Your task to perform on an android device: Search for razer nari on amazon, select the first entry, add it to the cart, then select checkout. Image 0: 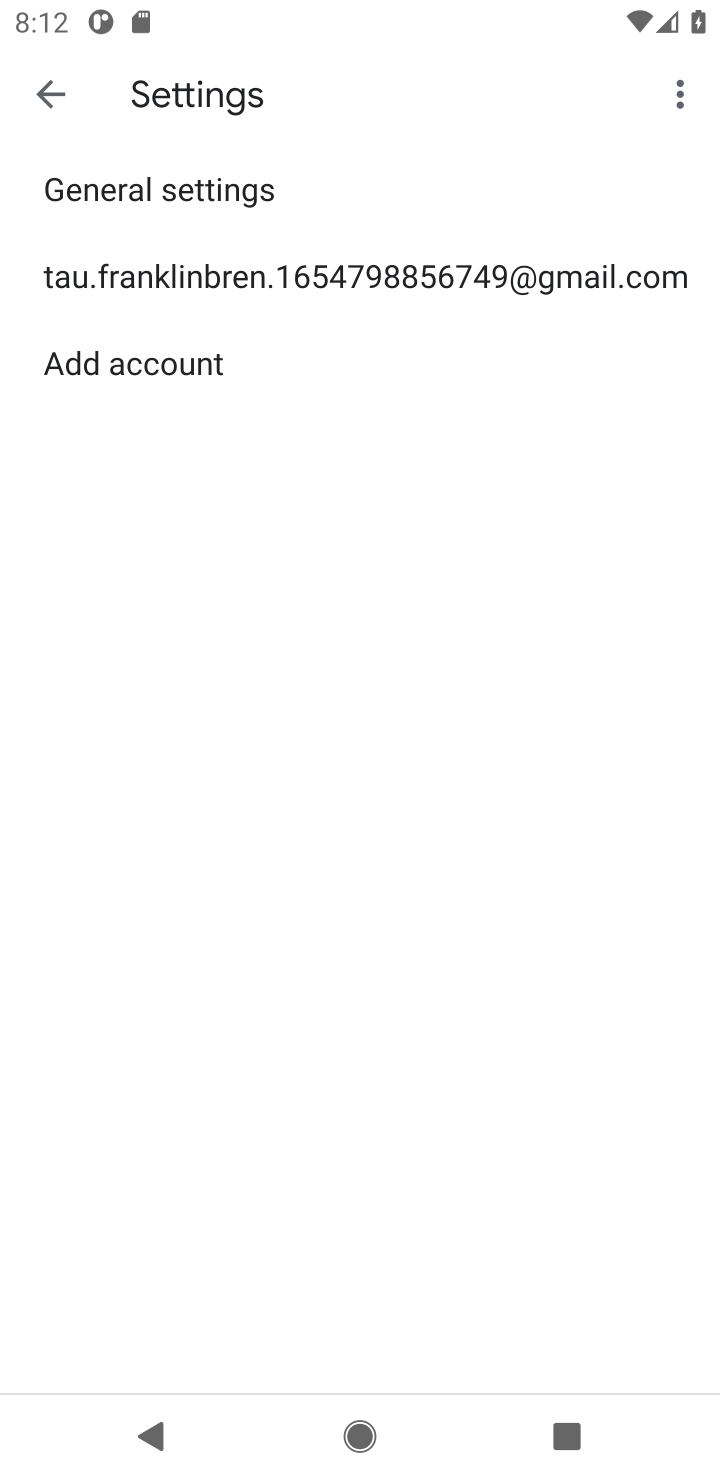
Step 0: press home button
Your task to perform on an android device: Search for razer nari on amazon, select the first entry, add it to the cart, then select checkout. Image 1: 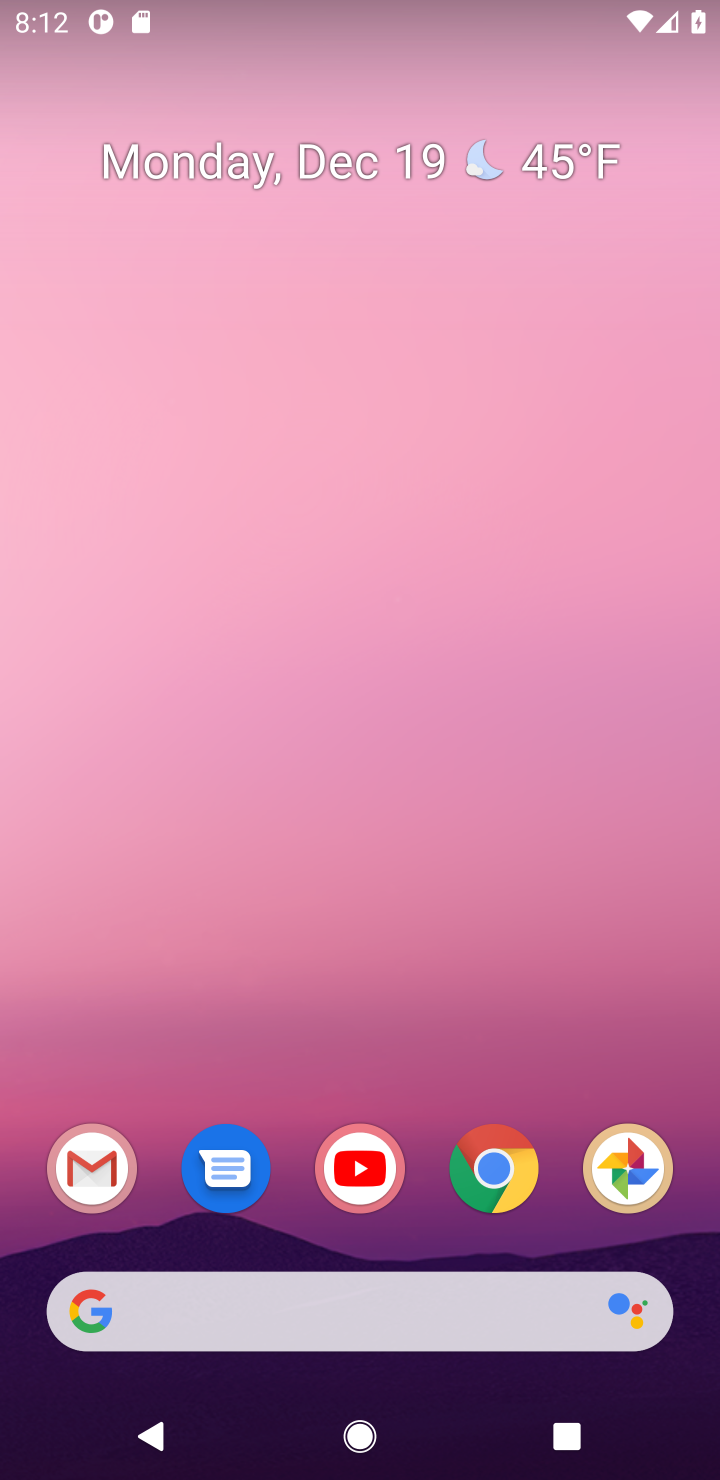
Step 1: click (501, 1170)
Your task to perform on an android device: Search for razer nari on amazon, select the first entry, add it to the cart, then select checkout. Image 2: 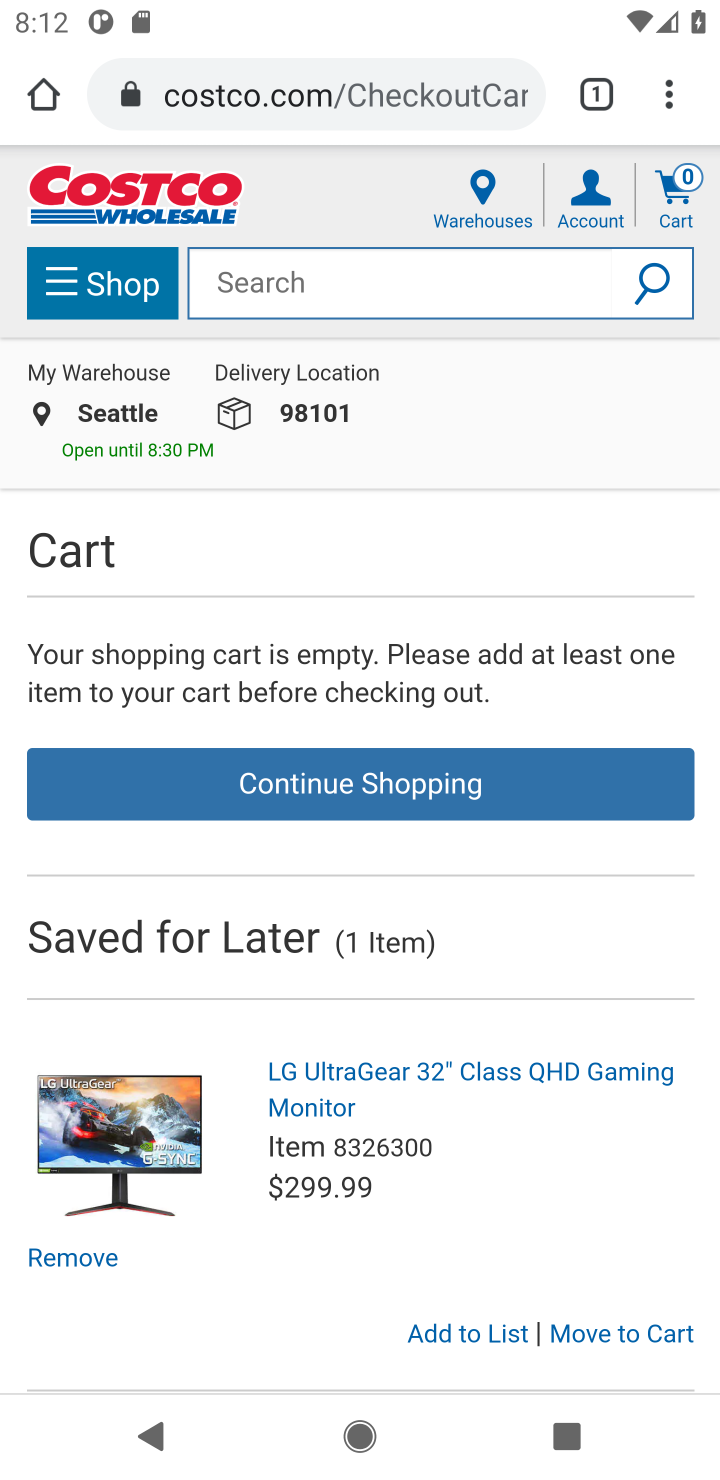
Step 2: click (272, 103)
Your task to perform on an android device: Search for razer nari on amazon, select the first entry, add it to the cart, then select checkout. Image 3: 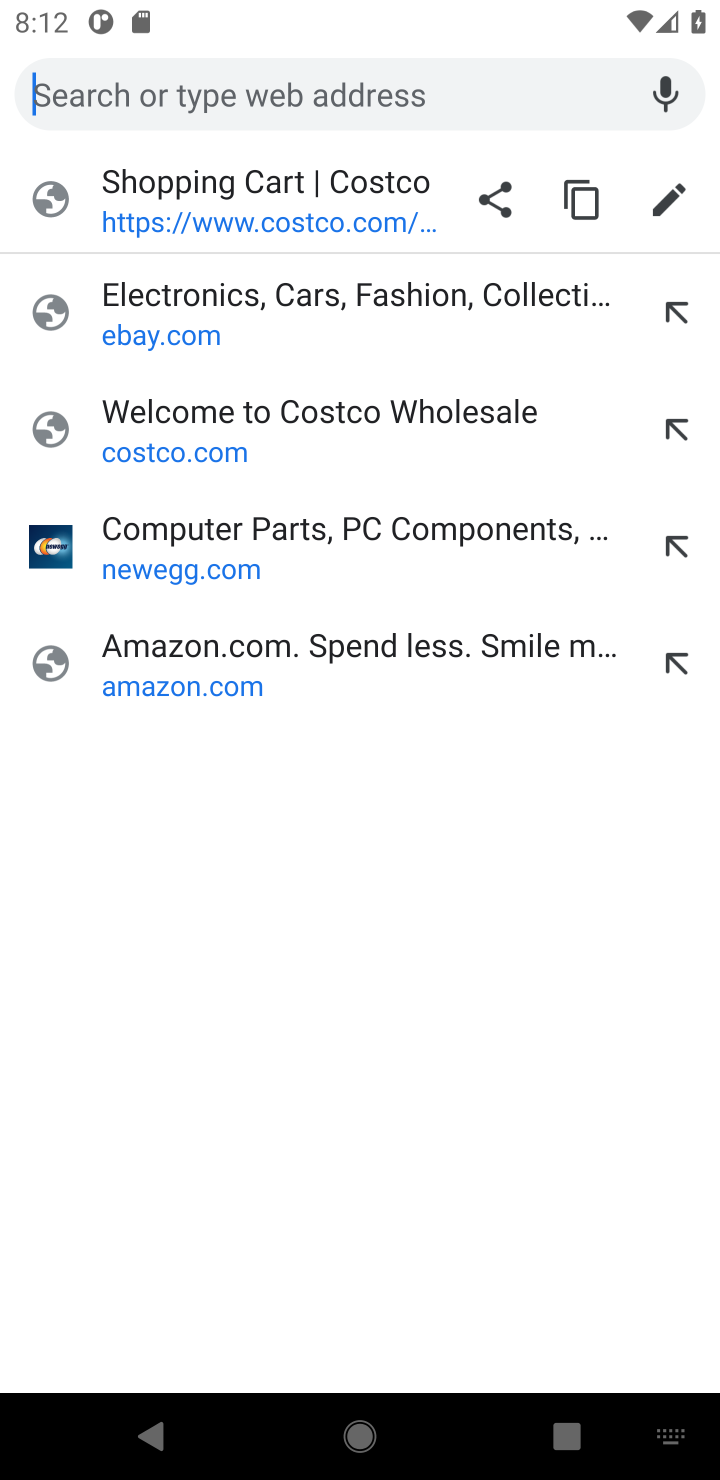
Step 3: click (155, 658)
Your task to perform on an android device: Search for razer nari on amazon, select the first entry, add it to the cart, then select checkout. Image 4: 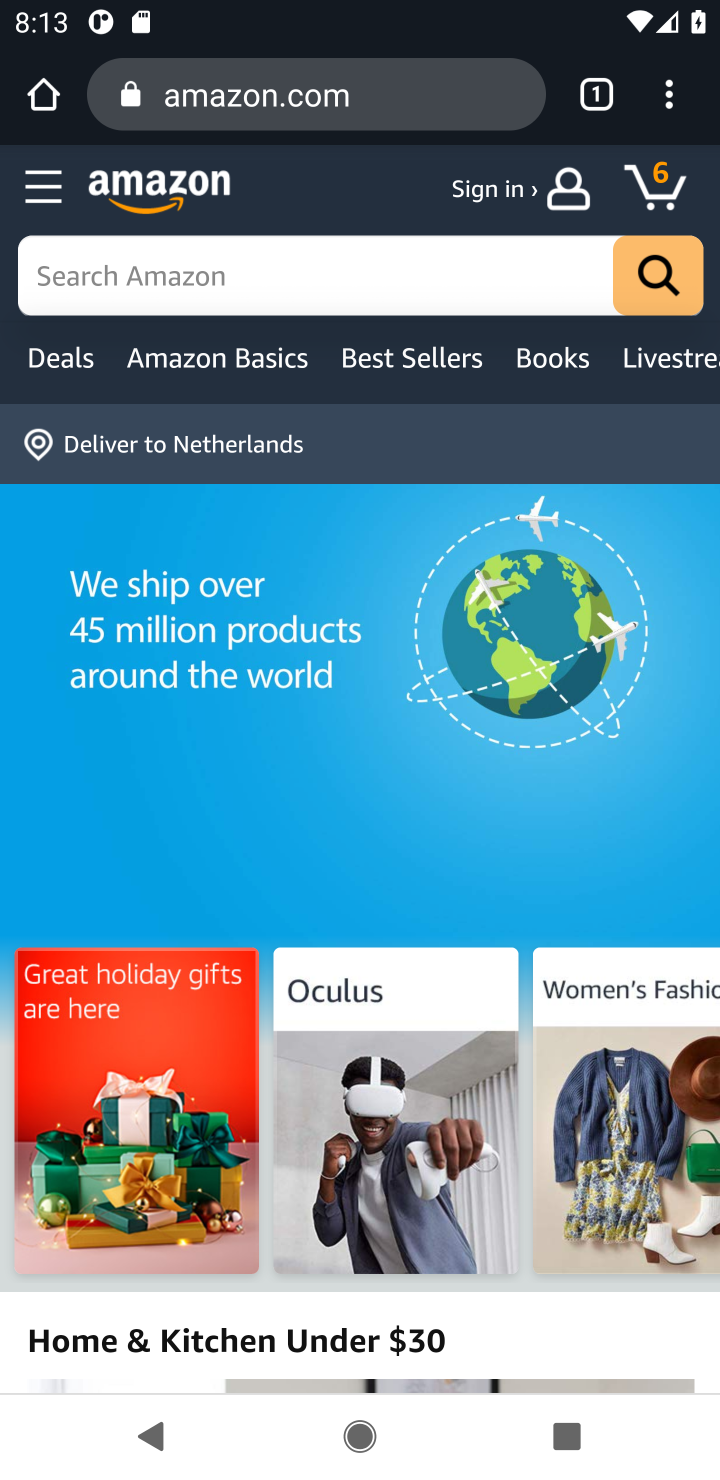
Step 4: click (84, 262)
Your task to perform on an android device: Search for razer nari on amazon, select the first entry, add it to the cart, then select checkout. Image 5: 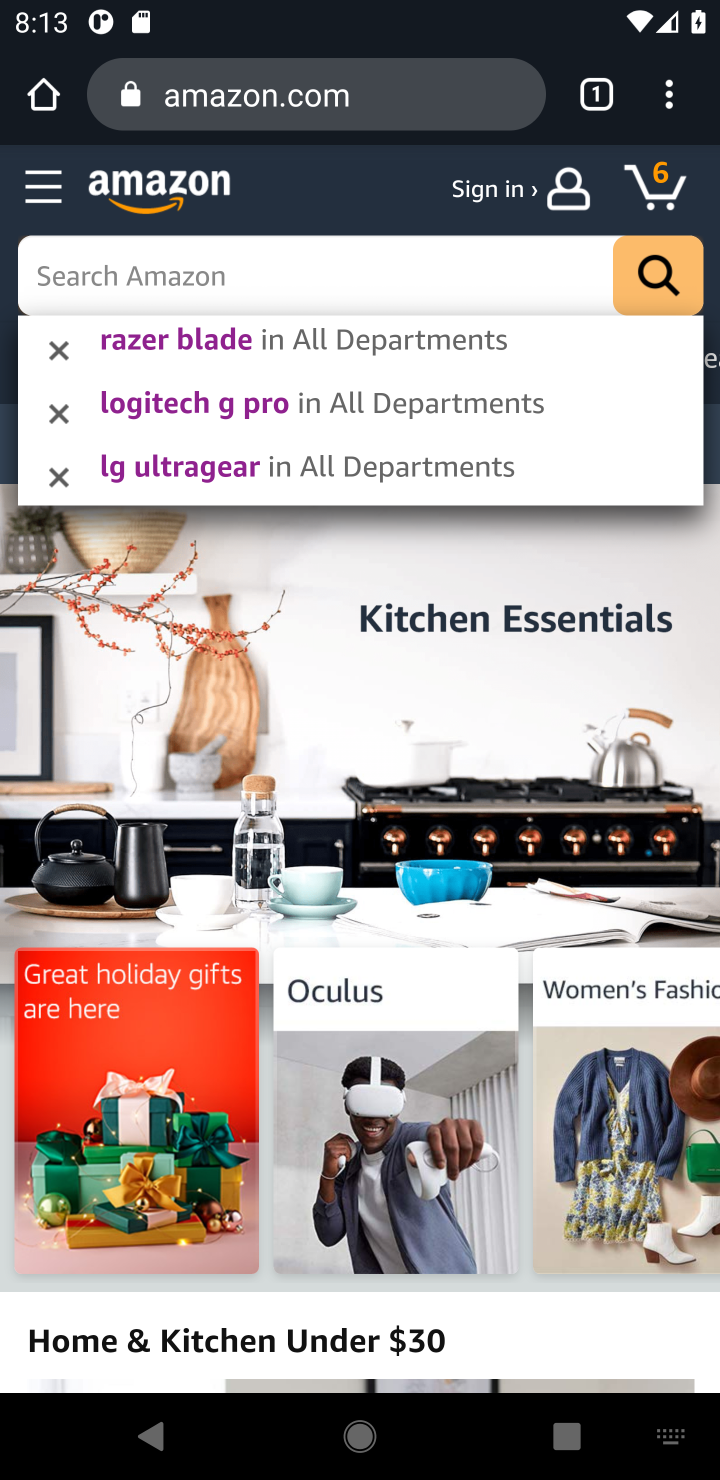
Step 5: type "razer nari "
Your task to perform on an android device: Search for razer nari on amazon, select the first entry, add it to the cart, then select checkout. Image 6: 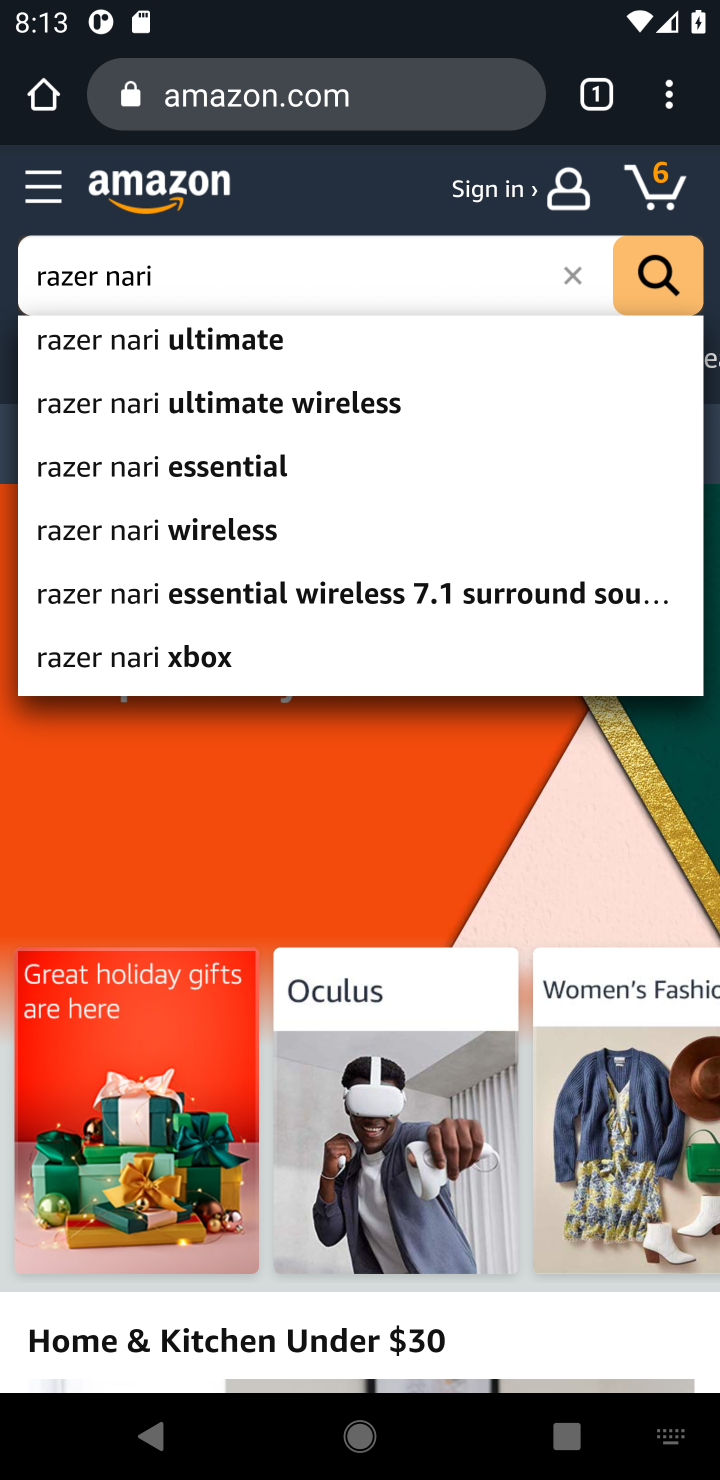
Step 6: click (132, 595)
Your task to perform on an android device: Search for razer nari on amazon, select the first entry, add it to the cart, then select checkout. Image 7: 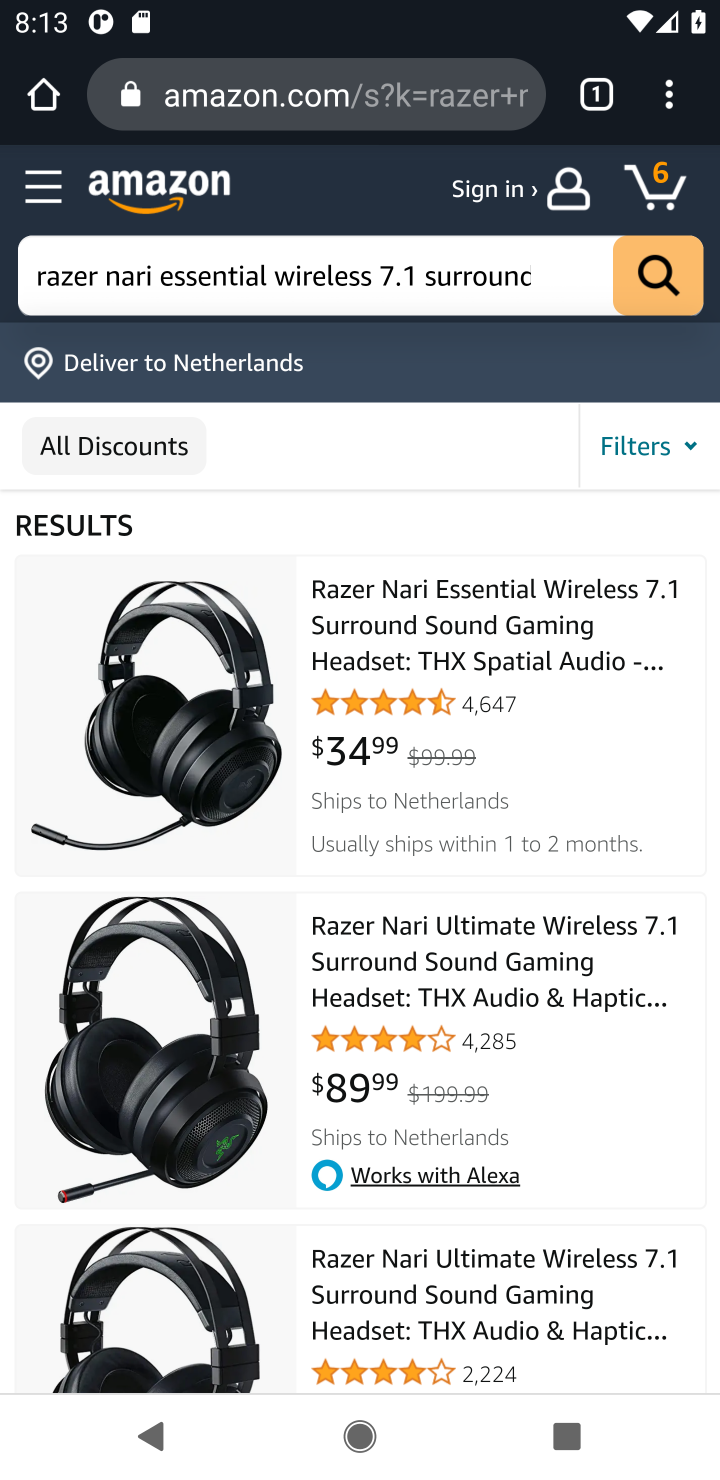
Step 7: click (436, 652)
Your task to perform on an android device: Search for razer nari on amazon, select the first entry, add it to the cart, then select checkout. Image 8: 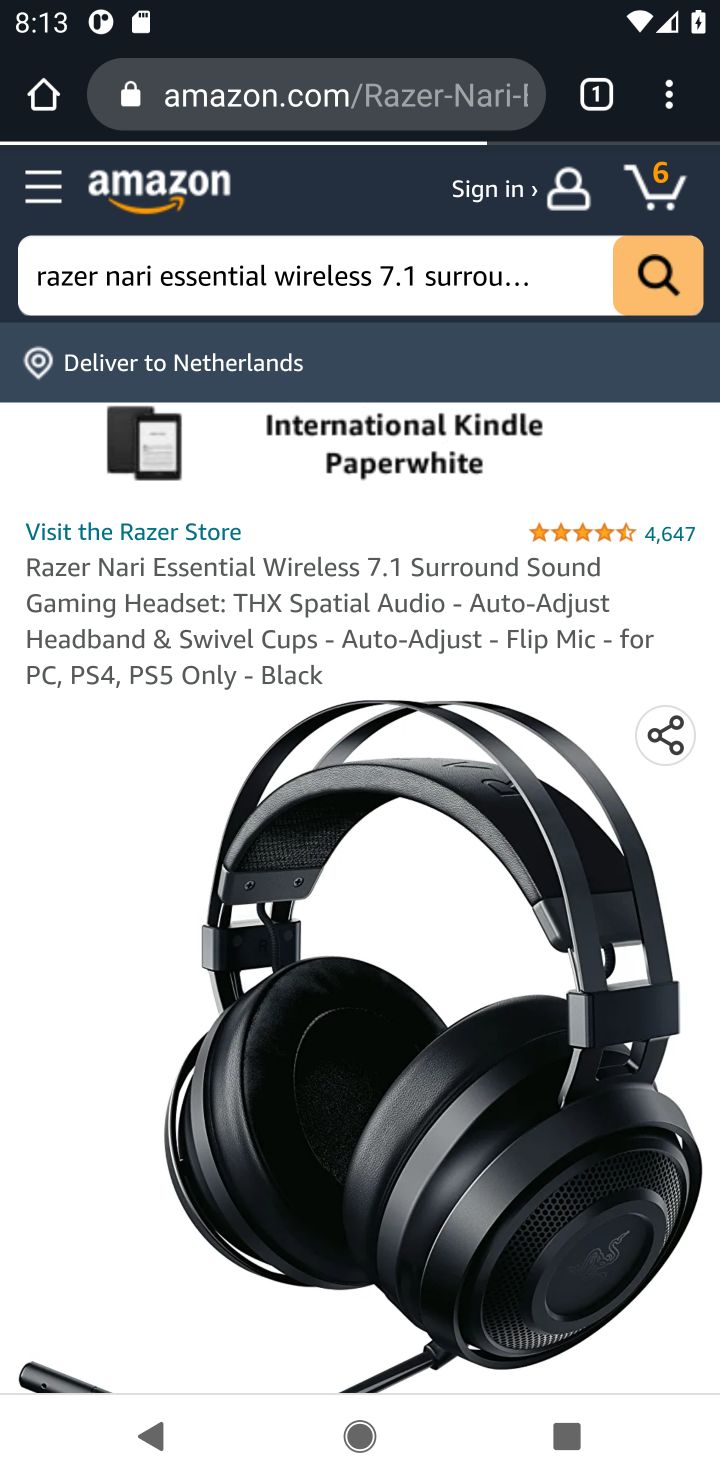
Step 8: drag from (353, 1104) to (315, 340)
Your task to perform on an android device: Search for razer nari on amazon, select the first entry, add it to the cart, then select checkout. Image 9: 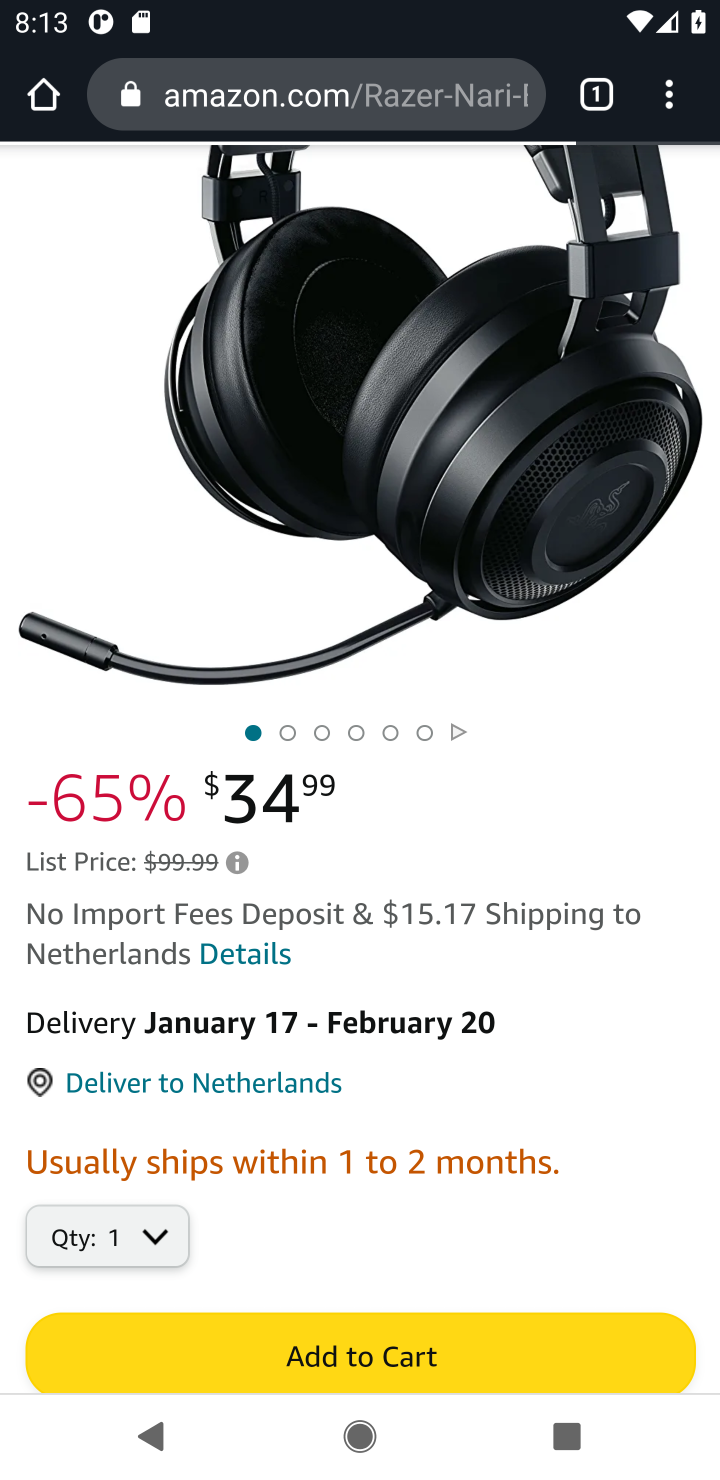
Step 9: drag from (395, 1084) to (360, 603)
Your task to perform on an android device: Search for razer nari on amazon, select the first entry, add it to the cart, then select checkout. Image 10: 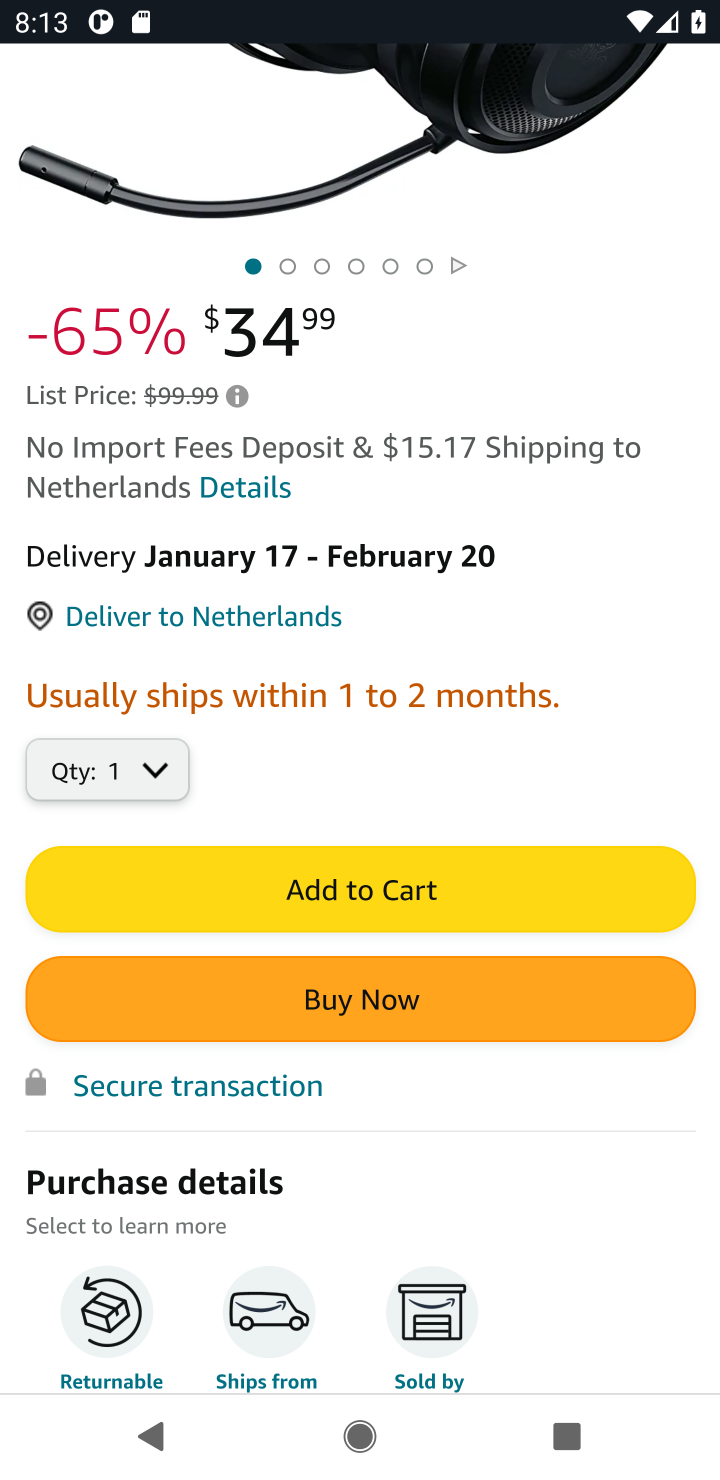
Step 10: click (331, 904)
Your task to perform on an android device: Search for razer nari on amazon, select the first entry, add it to the cart, then select checkout. Image 11: 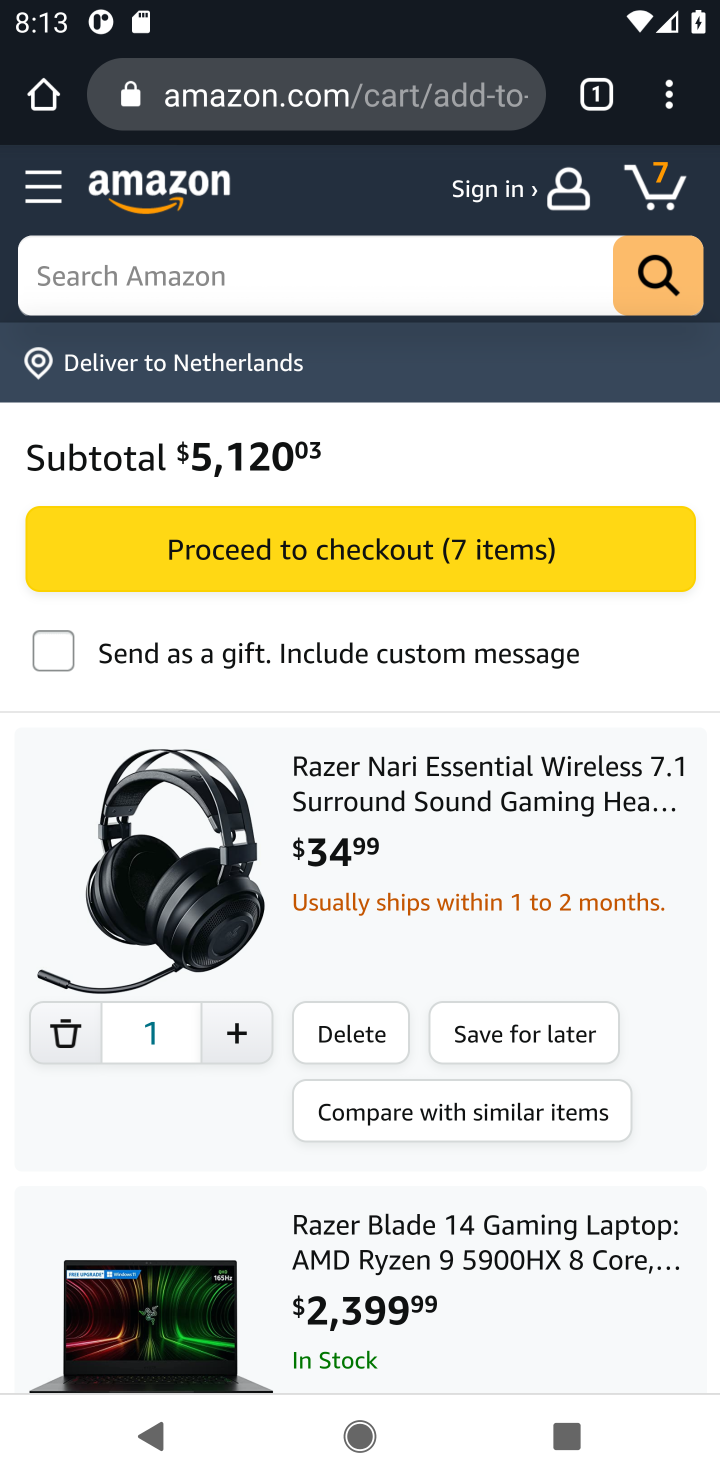
Step 11: click (327, 557)
Your task to perform on an android device: Search for razer nari on amazon, select the first entry, add it to the cart, then select checkout. Image 12: 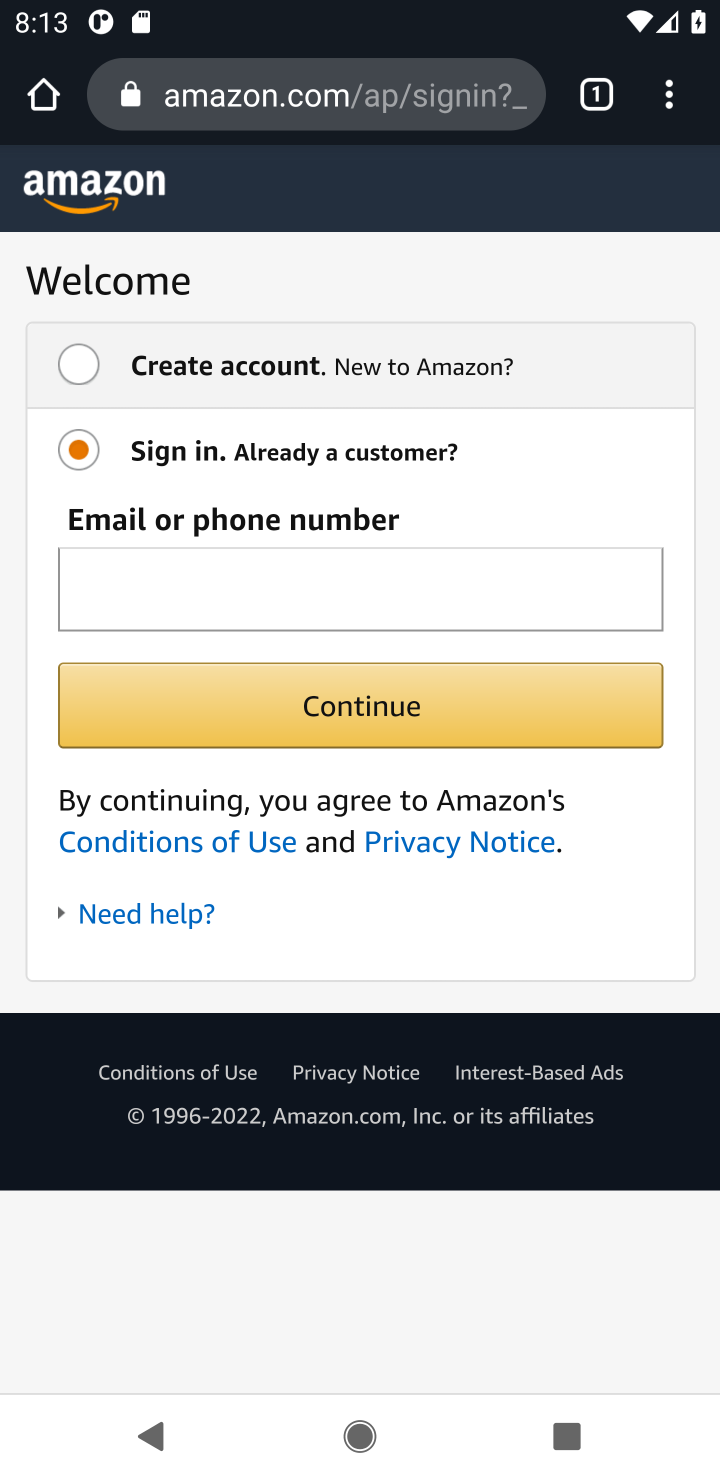
Step 12: task complete